Your task to perform on an android device: open app "Venmo" (install if not already installed) Image 0: 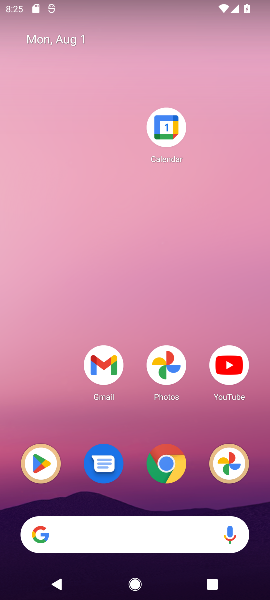
Step 0: drag from (100, 369) to (131, 61)
Your task to perform on an android device: open app "Venmo" (install if not already installed) Image 1: 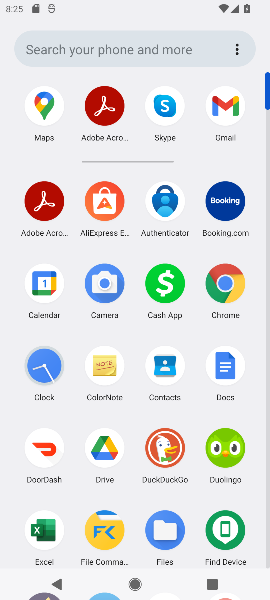
Step 1: drag from (196, 506) to (209, 210)
Your task to perform on an android device: open app "Venmo" (install if not already installed) Image 2: 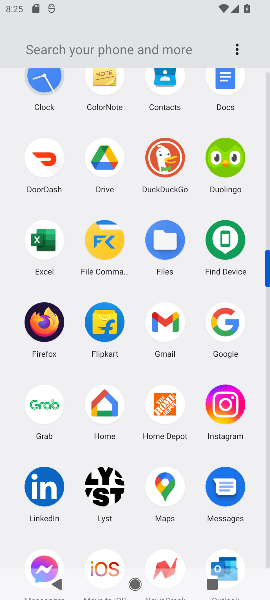
Step 2: drag from (191, 535) to (165, 142)
Your task to perform on an android device: open app "Venmo" (install if not already installed) Image 3: 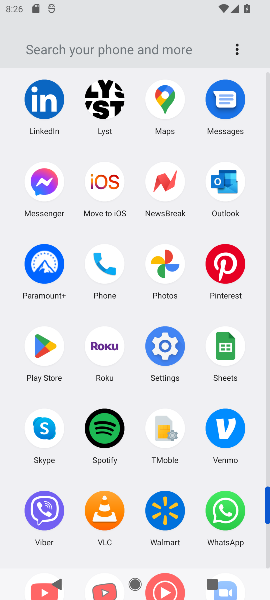
Step 3: click (239, 436)
Your task to perform on an android device: open app "Venmo" (install if not already installed) Image 4: 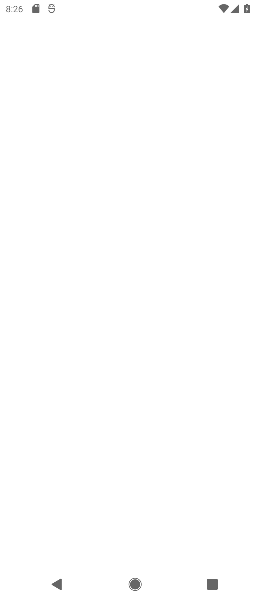
Step 4: task complete